Your task to perform on an android device: Go to settings Image 0: 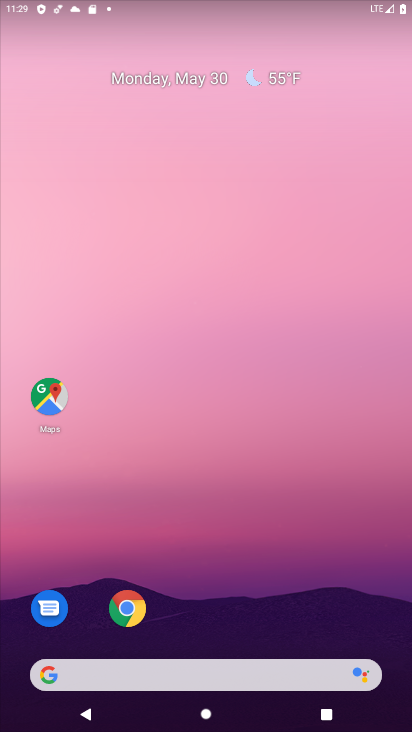
Step 0: drag from (240, 650) to (310, 52)
Your task to perform on an android device: Go to settings Image 1: 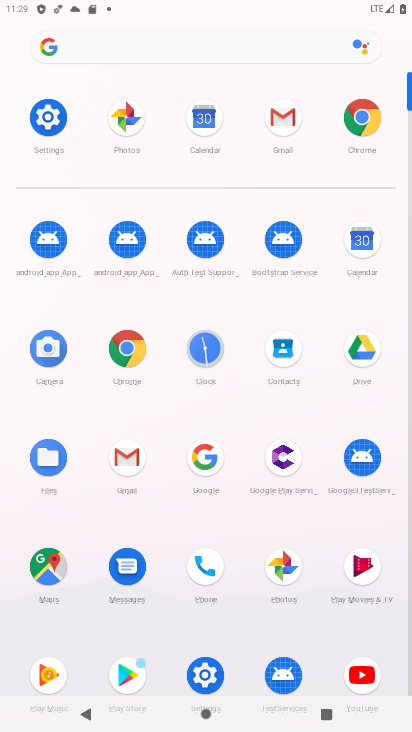
Step 1: click (37, 115)
Your task to perform on an android device: Go to settings Image 2: 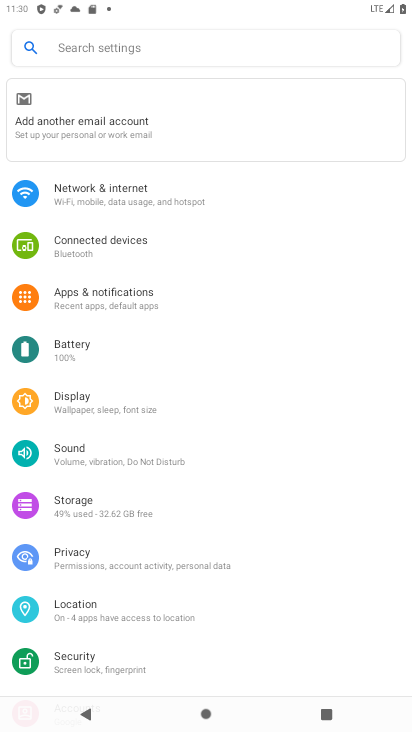
Step 2: task complete